Your task to perform on an android device: Open ESPN.com Image 0: 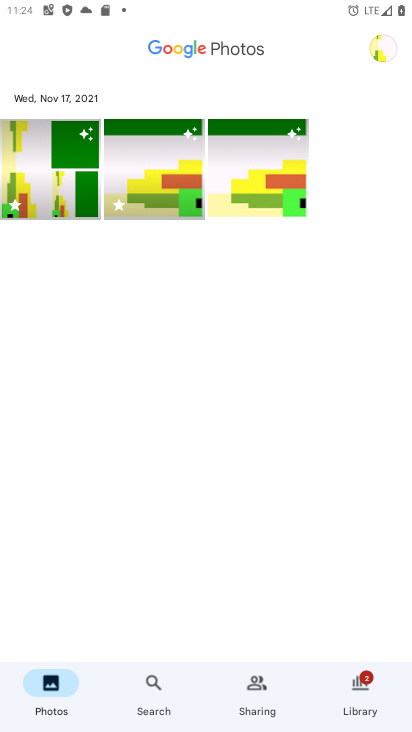
Step 0: press home button
Your task to perform on an android device: Open ESPN.com Image 1: 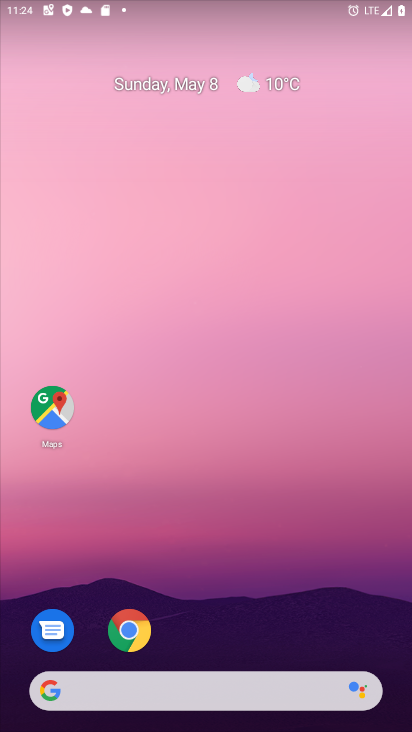
Step 1: drag from (344, 623) to (278, 45)
Your task to perform on an android device: Open ESPN.com Image 2: 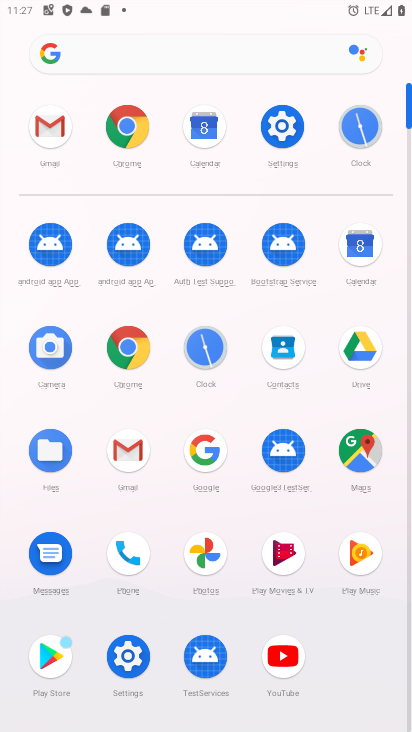
Step 2: click (115, 122)
Your task to perform on an android device: Open ESPN.com Image 3: 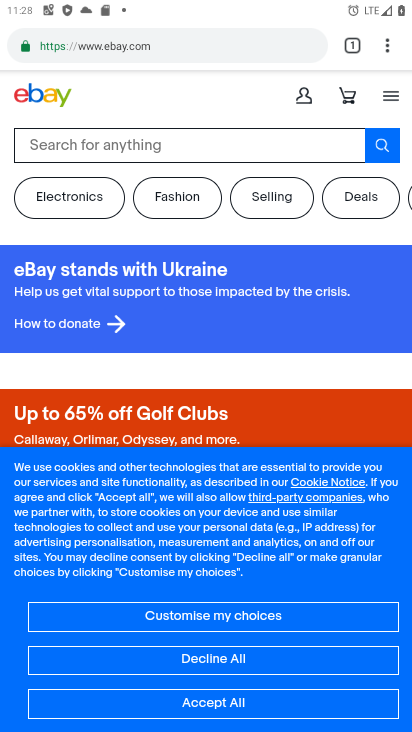
Step 3: press back button
Your task to perform on an android device: Open ESPN.com Image 4: 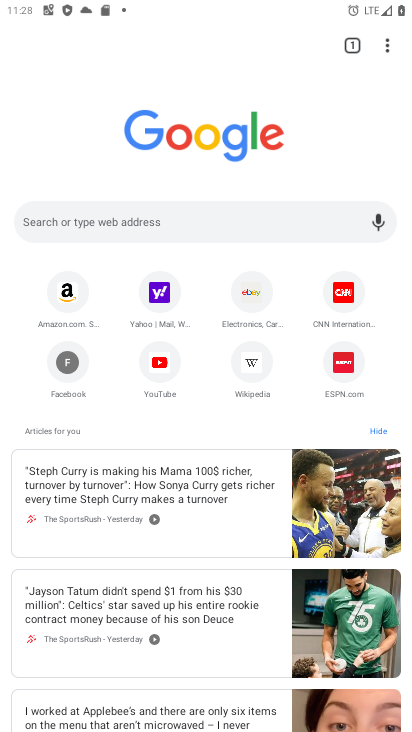
Step 4: click (330, 366)
Your task to perform on an android device: Open ESPN.com Image 5: 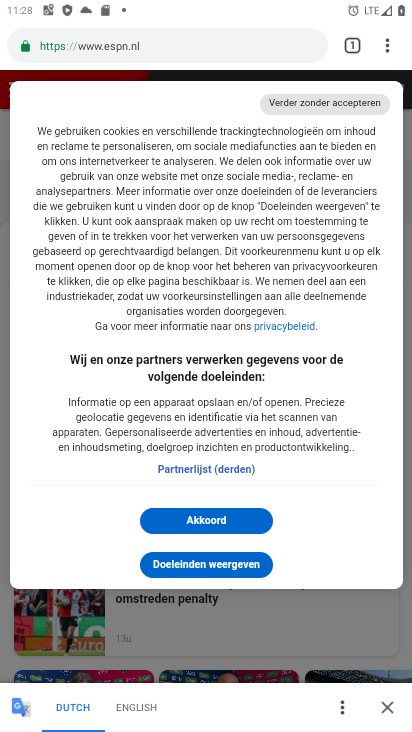
Step 5: task complete